Your task to perform on an android device: turn pop-ups off in chrome Image 0: 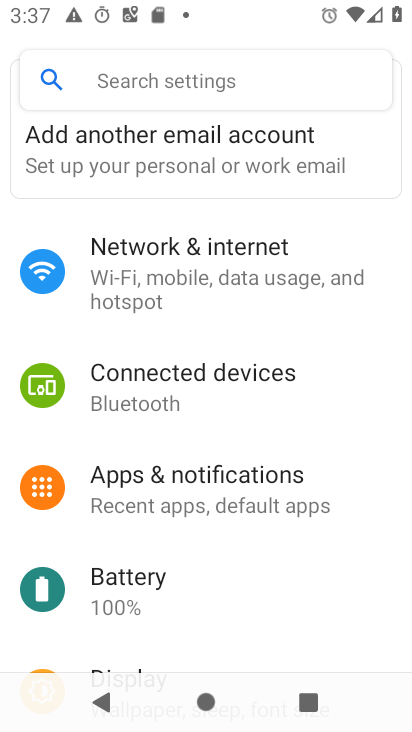
Step 0: press home button
Your task to perform on an android device: turn pop-ups off in chrome Image 1: 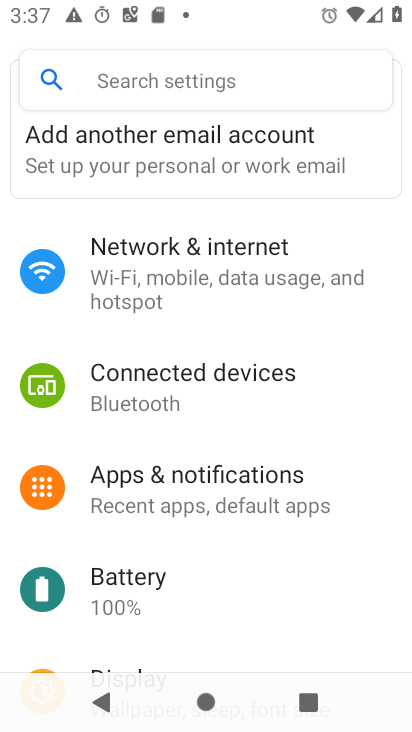
Step 1: press home button
Your task to perform on an android device: turn pop-ups off in chrome Image 2: 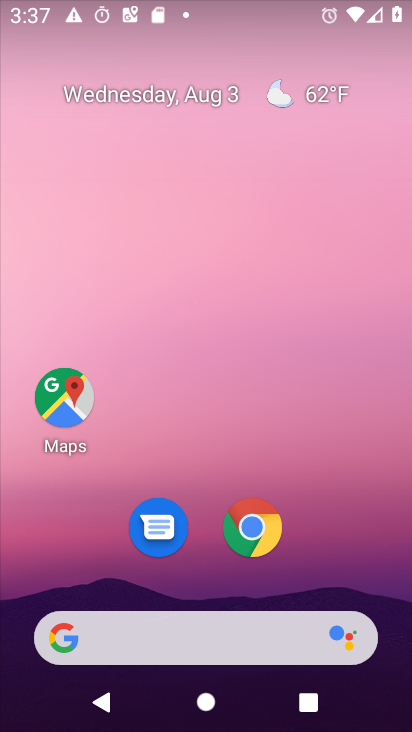
Step 2: drag from (352, 510) to (318, 2)
Your task to perform on an android device: turn pop-ups off in chrome Image 3: 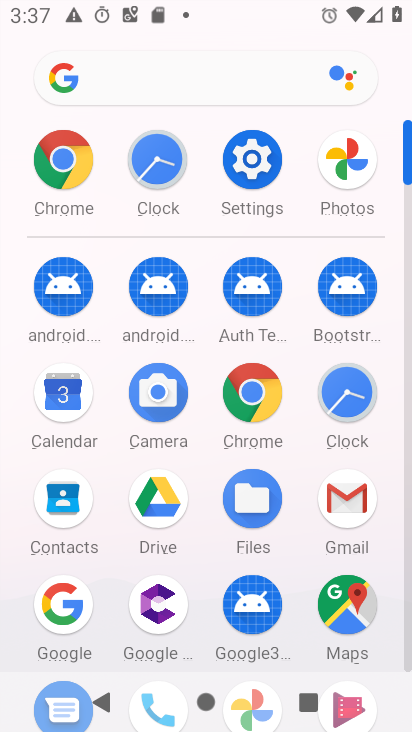
Step 3: click (251, 387)
Your task to perform on an android device: turn pop-ups off in chrome Image 4: 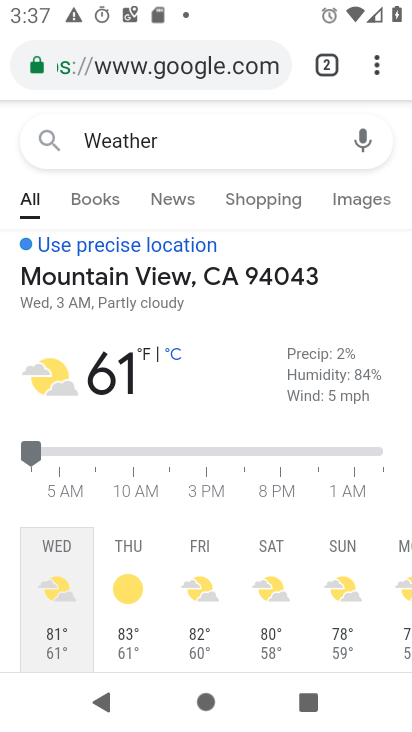
Step 4: drag from (380, 71) to (217, 579)
Your task to perform on an android device: turn pop-ups off in chrome Image 5: 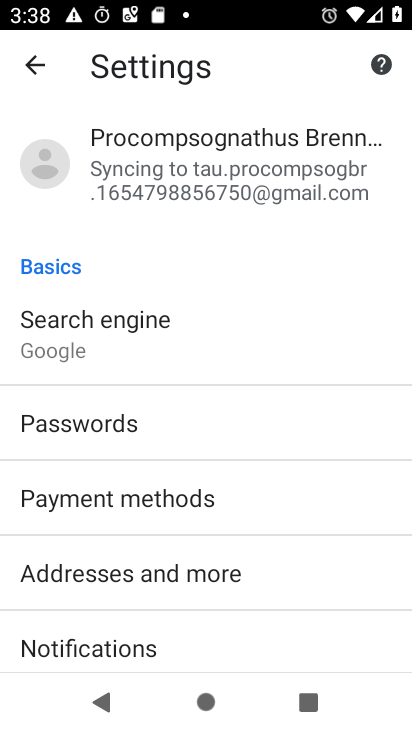
Step 5: drag from (324, 637) to (401, 133)
Your task to perform on an android device: turn pop-ups off in chrome Image 6: 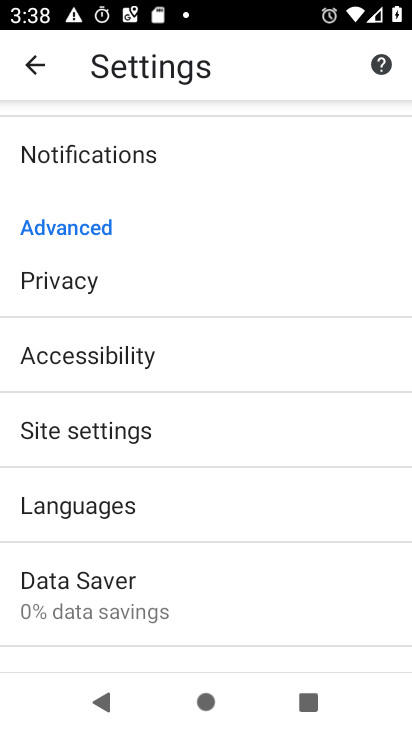
Step 6: click (125, 429)
Your task to perform on an android device: turn pop-ups off in chrome Image 7: 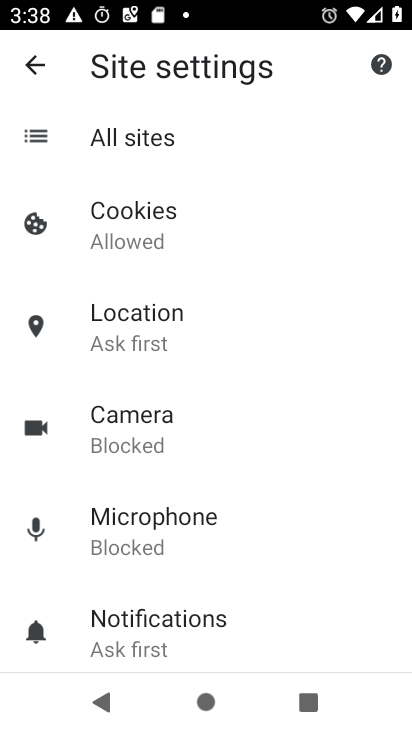
Step 7: drag from (310, 542) to (373, 228)
Your task to perform on an android device: turn pop-ups off in chrome Image 8: 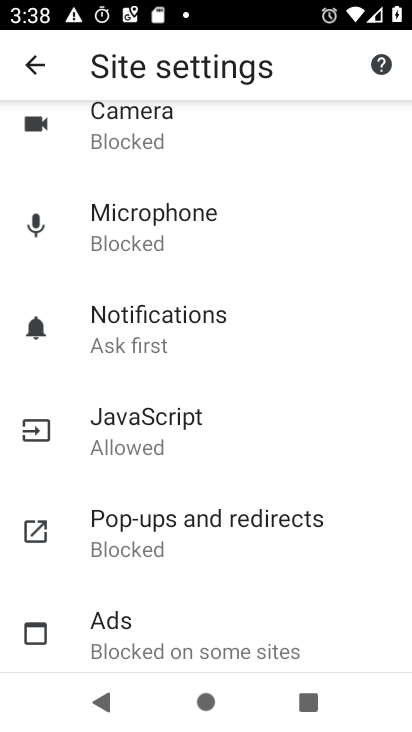
Step 8: click (190, 520)
Your task to perform on an android device: turn pop-ups off in chrome Image 9: 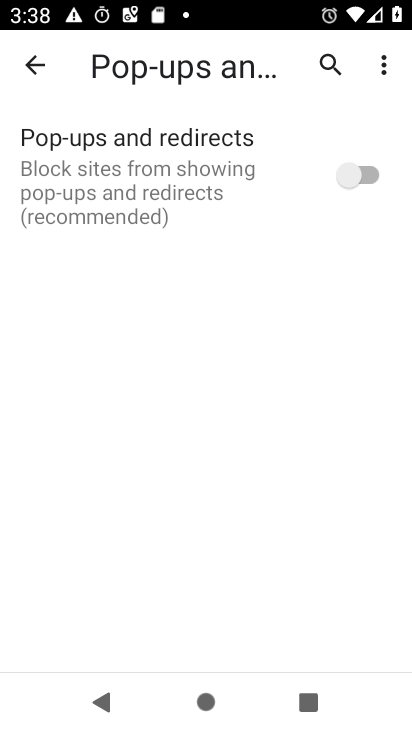
Step 9: task complete